Your task to perform on an android device: Open Chrome and go to settings Image 0: 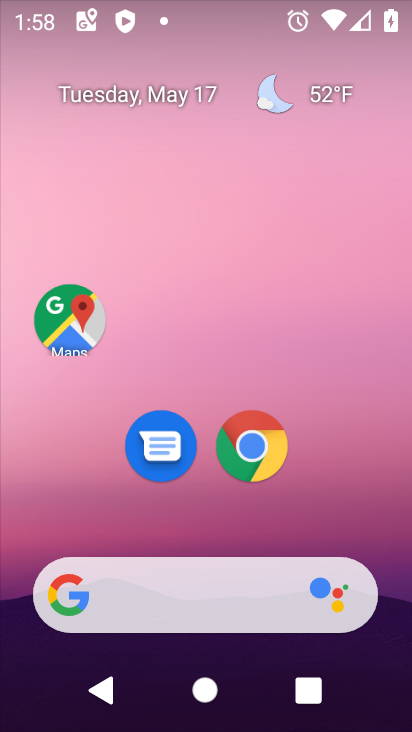
Step 0: click (260, 443)
Your task to perform on an android device: Open Chrome and go to settings Image 1: 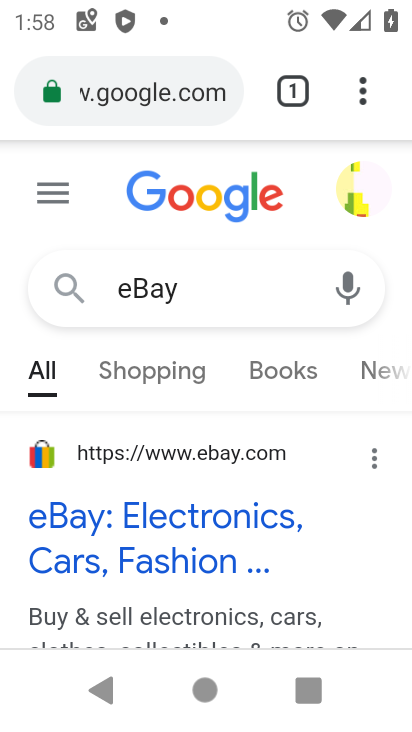
Step 1: click (369, 82)
Your task to perform on an android device: Open Chrome and go to settings Image 2: 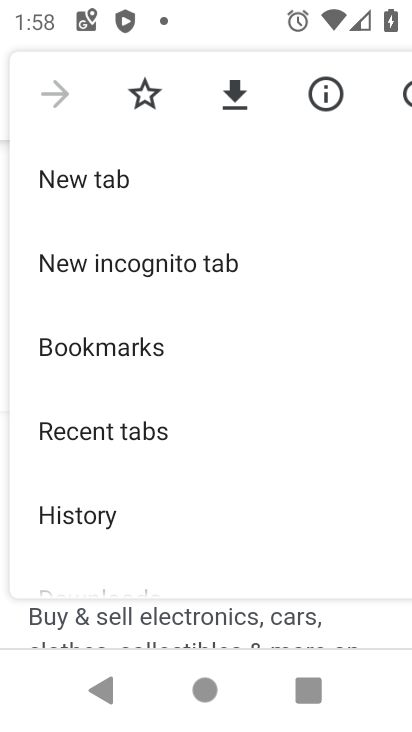
Step 2: drag from (82, 516) to (335, 63)
Your task to perform on an android device: Open Chrome and go to settings Image 3: 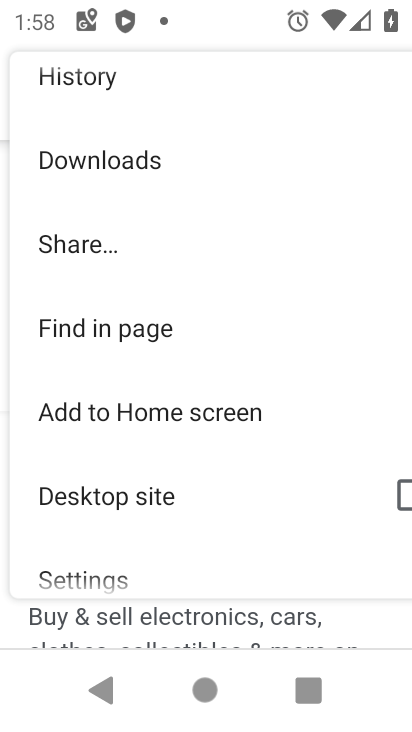
Step 3: drag from (164, 521) to (298, 214)
Your task to perform on an android device: Open Chrome and go to settings Image 4: 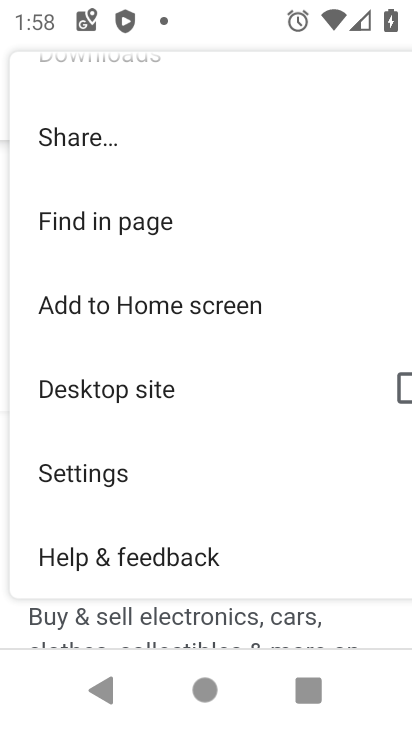
Step 4: click (112, 466)
Your task to perform on an android device: Open Chrome and go to settings Image 5: 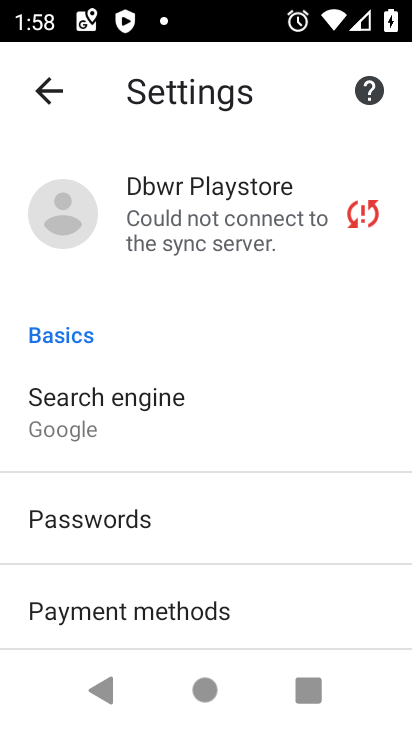
Step 5: task complete